Your task to perform on an android device: Open ESPN.com Image 0: 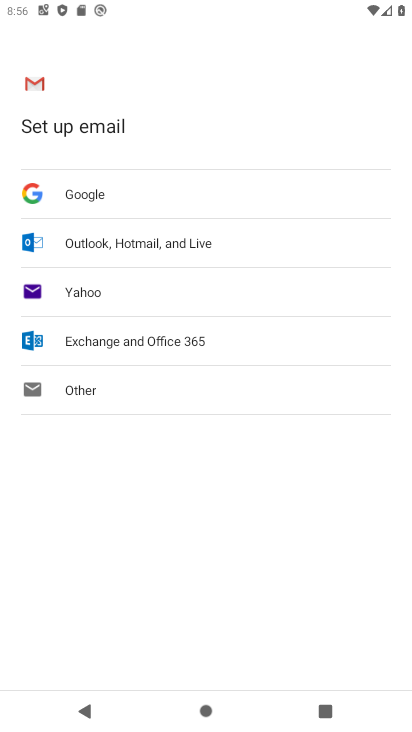
Step 0: press home button
Your task to perform on an android device: Open ESPN.com Image 1: 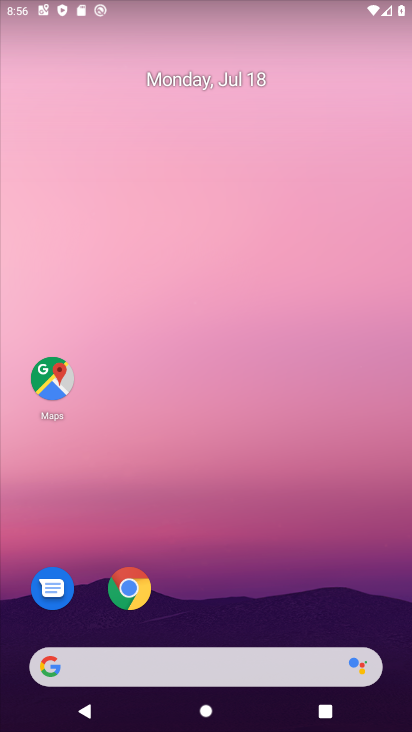
Step 1: click (132, 592)
Your task to perform on an android device: Open ESPN.com Image 2: 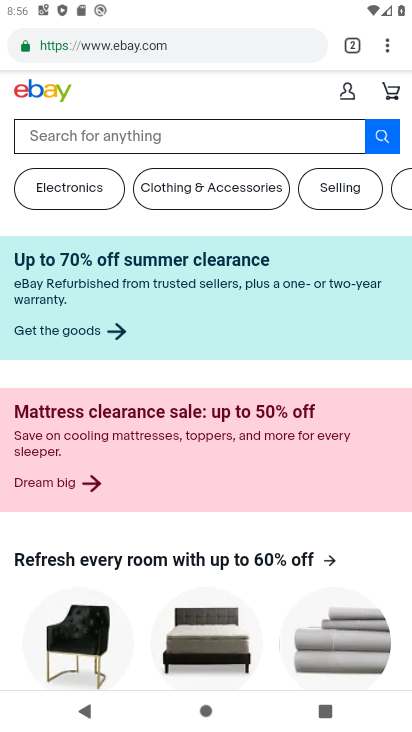
Step 2: click (214, 44)
Your task to perform on an android device: Open ESPN.com Image 3: 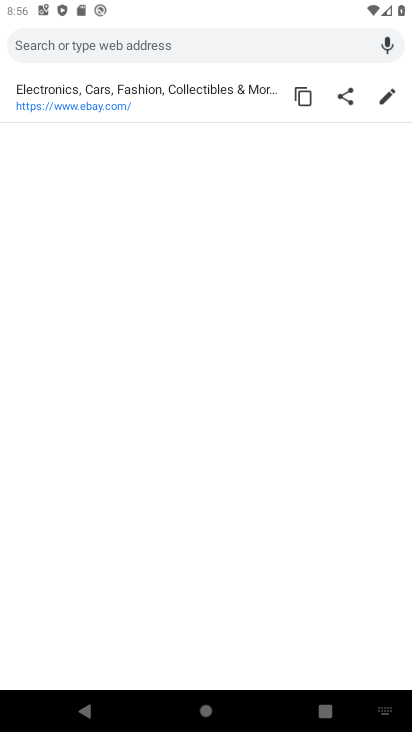
Step 3: type "ESPN.com"
Your task to perform on an android device: Open ESPN.com Image 4: 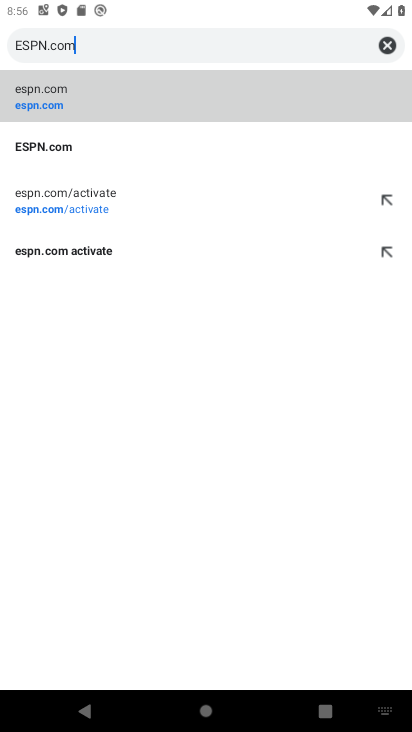
Step 4: click (191, 100)
Your task to perform on an android device: Open ESPN.com Image 5: 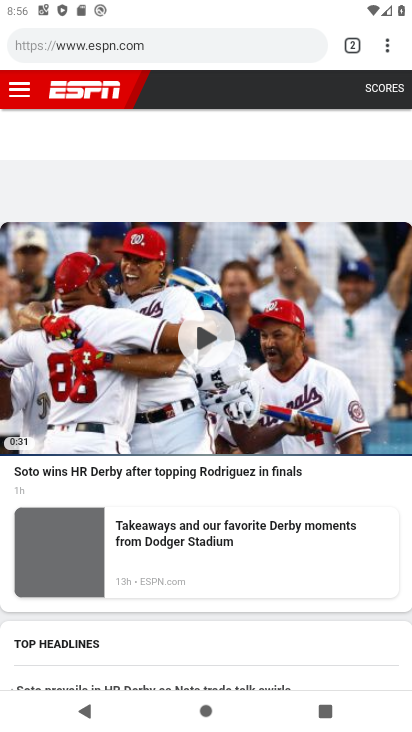
Step 5: task complete